Your task to perform on an android device: refresh tabs in the chrome app Image 0: 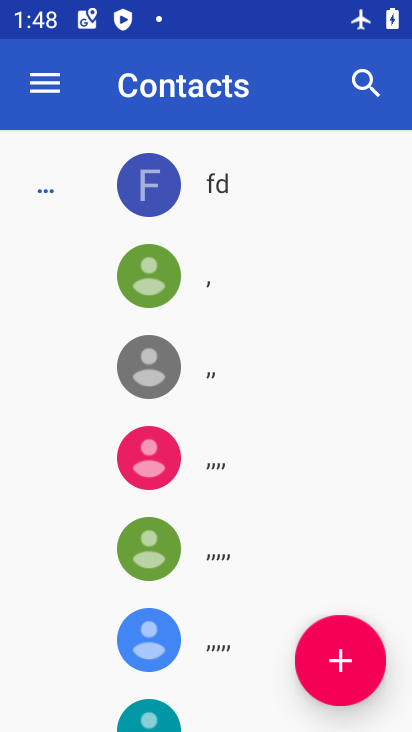
Step 0: press home button
Your task to perform on an android device: refresh tabs in the chrome app Image 1: 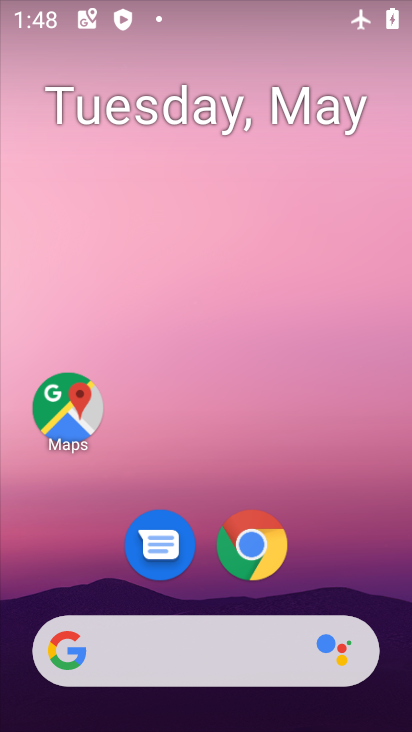
Step 1: click (252, 544)
Your task to perform on an android device: refresh tabs in the chrome app Image 2: 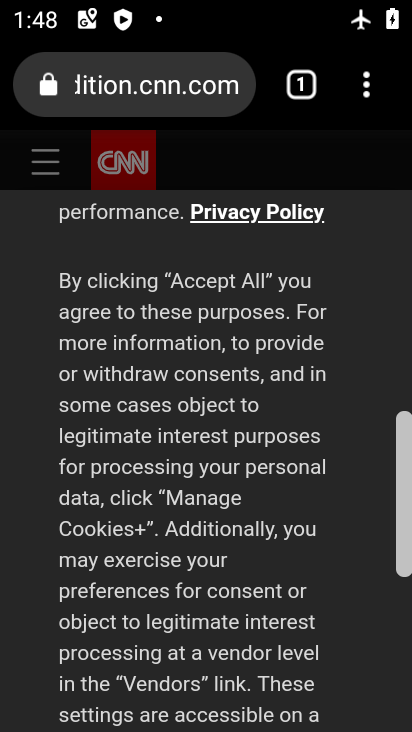
Step 2: click (370, 89)
Your task to perform on an android device: refresh tabs in the chrome app Image 3: 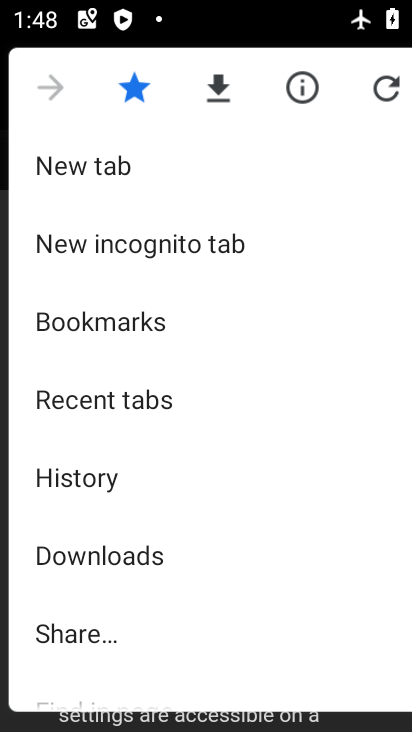
Step 3: click (382, 84)
Your task to perform on an android device: refresh tabs in the chrome app Image 4: 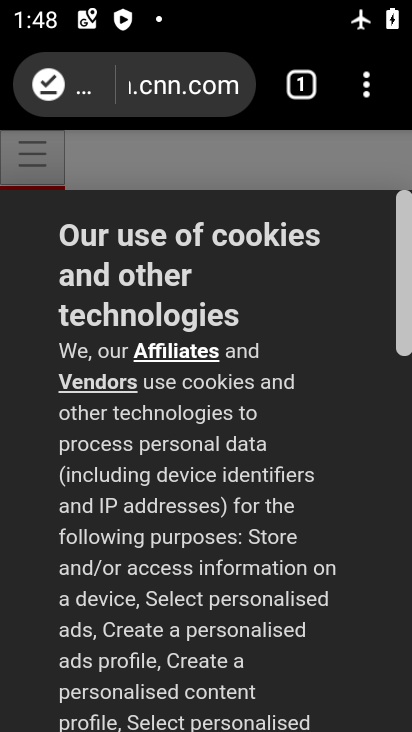
Step 4: task complete